Your task to perform on an android device: set default search engine in the chrome app Image 0: 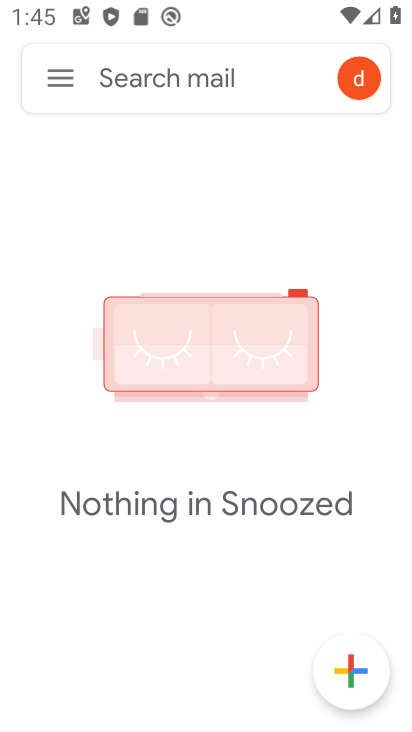
Step 0: press home button
Your task to perform on an android device: set default search engine in the chrome app Image 1: 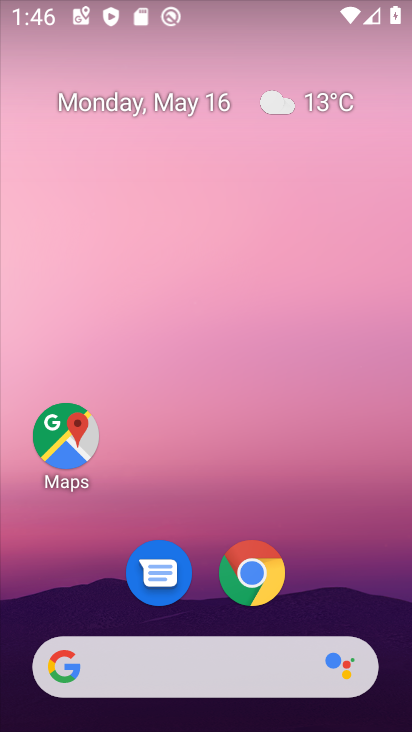
Step 1: click (242, 596)
Your task to perform on an android device: set default search engine in the chrome app Image 2: 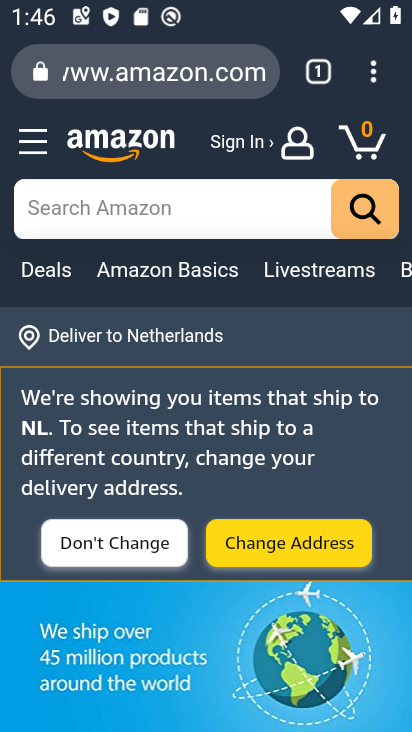
Step 2: drag from (383, 83) to (161, 571)
Your task to perform on an android device: set default search engine in the chrome app Image 3: 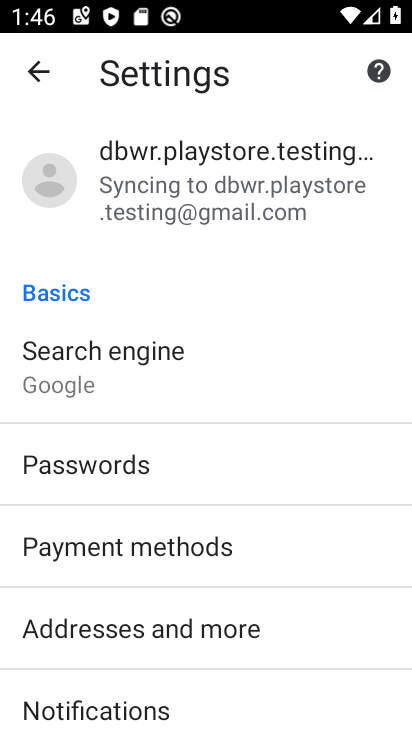
Step 3: click (141, 388)
Your task to perform on an android device: set default search engine in the chrome app Image 4: 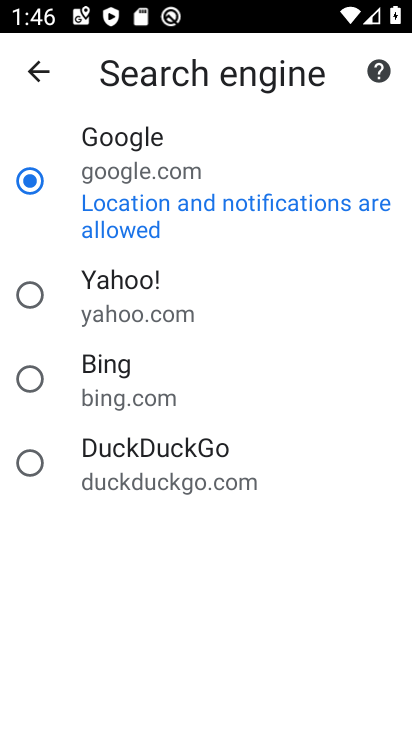
Step 4: click (110, 307)
Your task to perform on an android device: set default search engine in the chrome app Image 5: 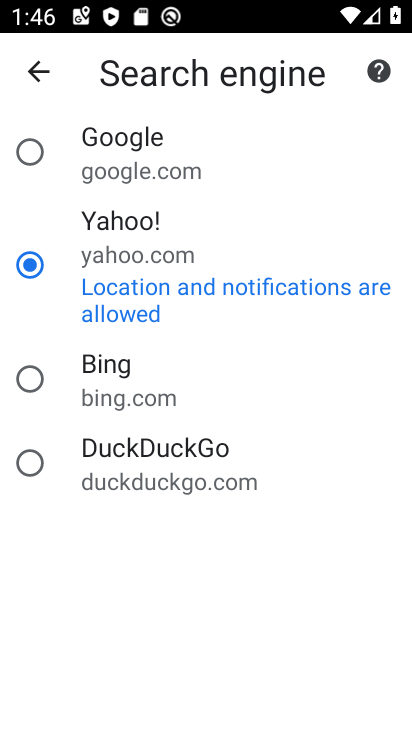
Step 5: task complete